Your task to perform on an android device: open device folders in google photos Image 0: 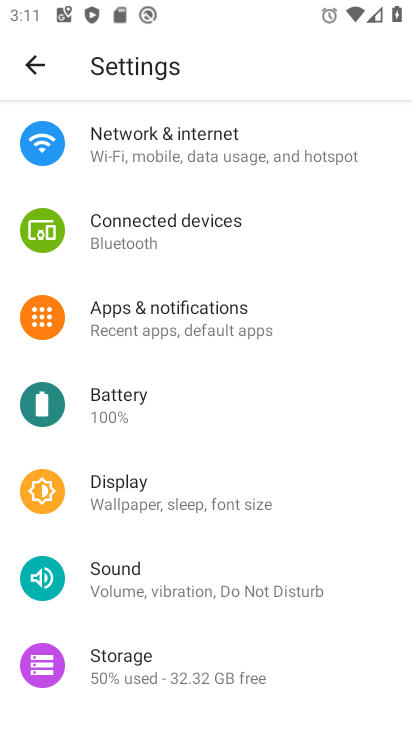
Step 0: press home button
Your task to perform on an android device: open device folders in google photos Image 1: 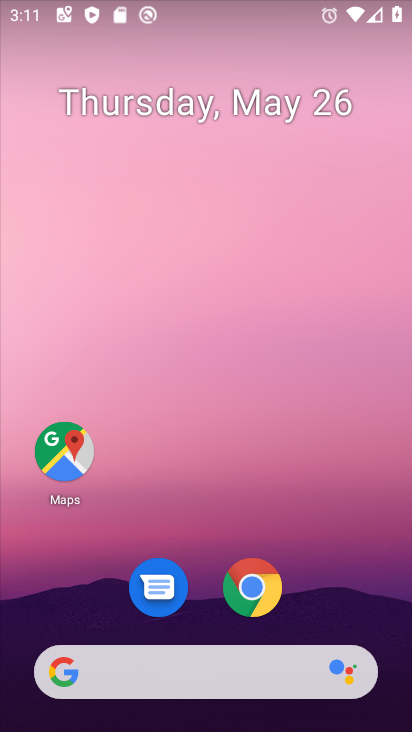
Step 1: drag from (357, 595) to (369, 142)
Your task to perform on an android device: open device folders in google photos Image 2: 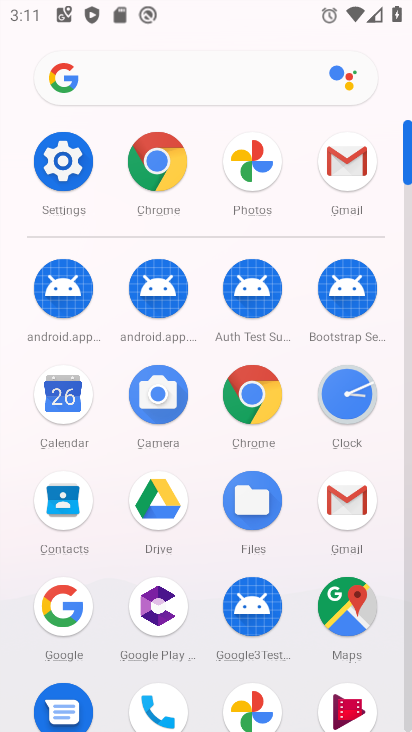
Step 2: click (272, 400)
Your task to perform on an android device: open device folders in google photos Image 3: 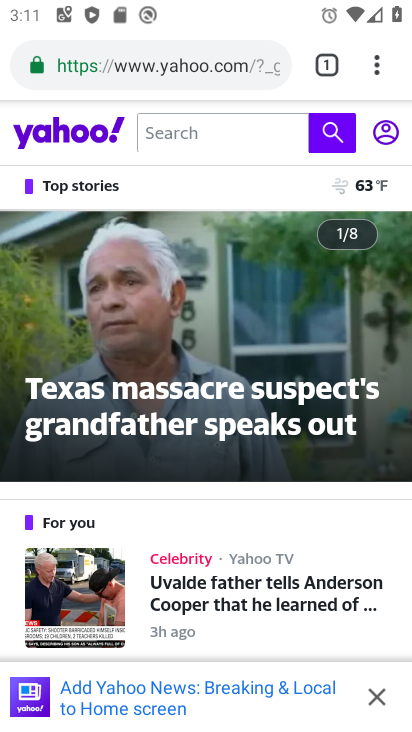
Step 3: press home button
Your task to perform on an android device: open device folders in google photos Image 4: 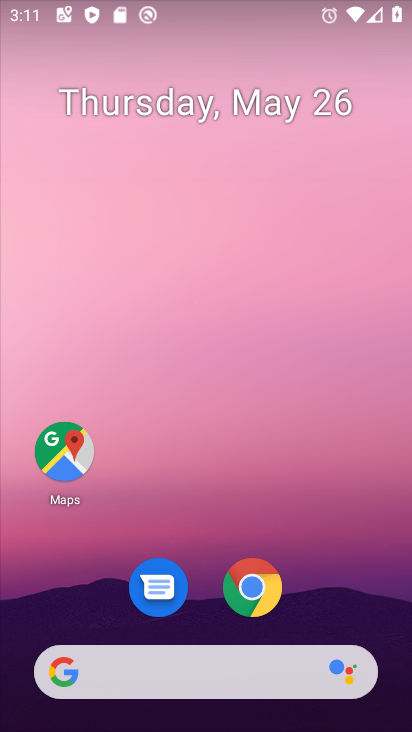
Step 4: drag from (341, 605) to (370, 183)
Your task to perform on an android device: open device folders in google photos Image 5: 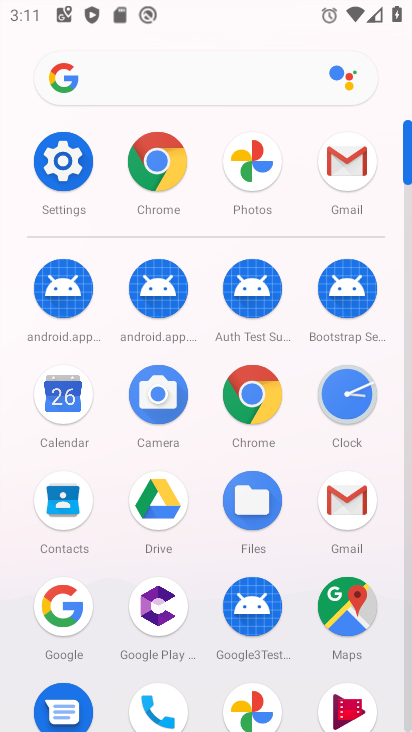
Step 5: drag from (381, 565) to (395, 258)
Your task to perform on an android device: open device folders in google photos Image 6: 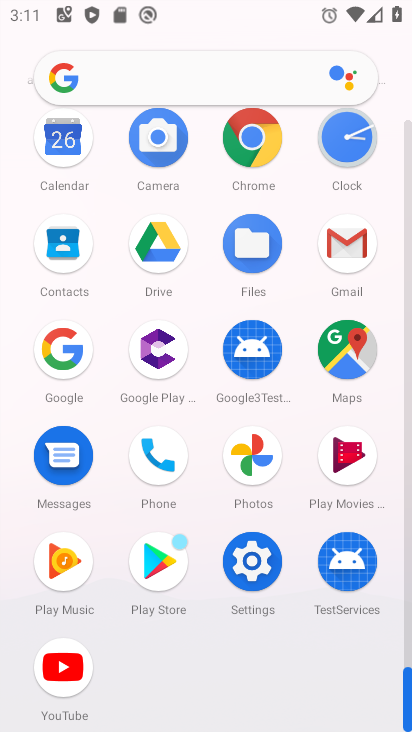
Step 6: click (263, 454)
Your task to perform on an android device: open device folders in google photos Image 7: 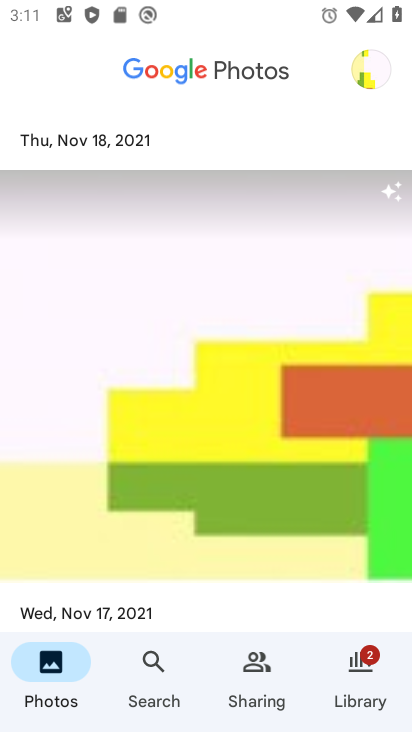
Step 7: click (355, 80)
Your task to perform on an android device: open device folders in google photos Image 8: 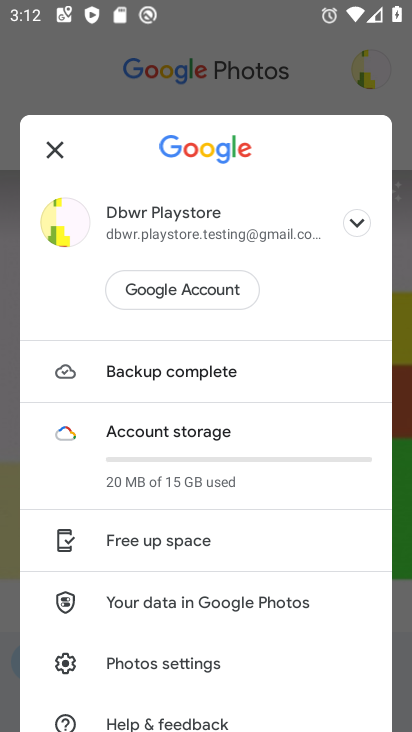
Step 8: drag from (268, 532) to (274, 300)
Your task to perform on an android device: open device folders in google photos Image 9: 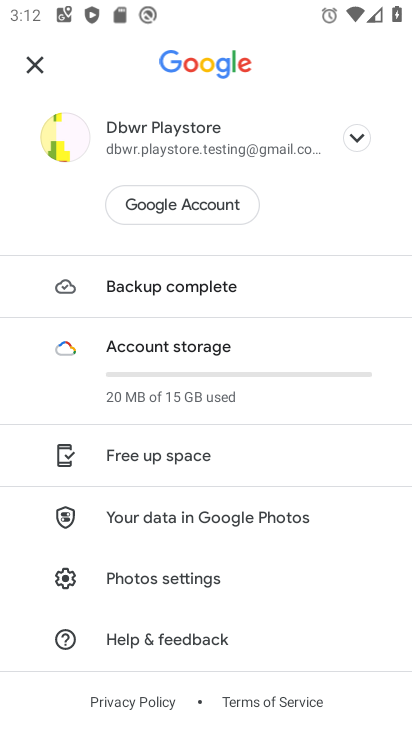
Step 9: click (31, 66)
Your task to perform on an android device: open device folders in google photos Image 10: 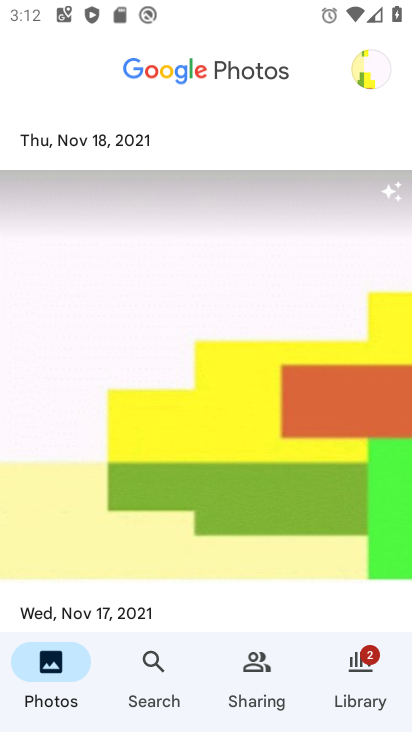
Step 10: click (372, 687)
Your task to perform on an android device: open device folders in google photos Image 11: 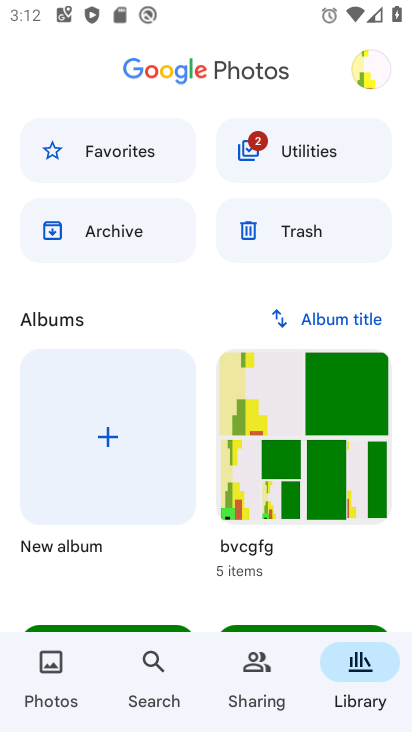
Step 11: task complete